Your task to perform on an android device: Open location settings Image 0: 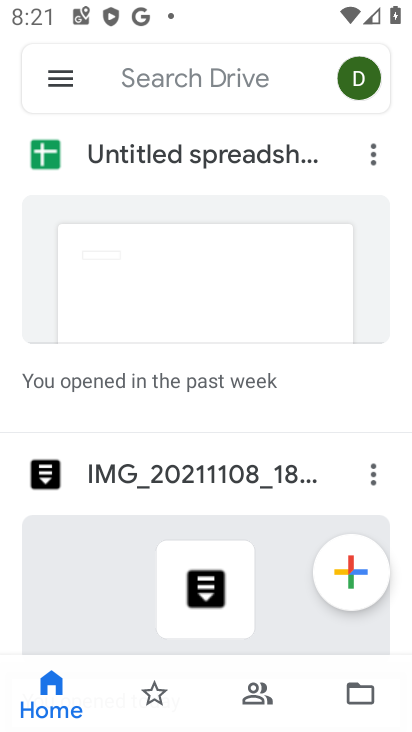
Step 0: press home button
Your task to perform on an android device: Open location settings Image 1: 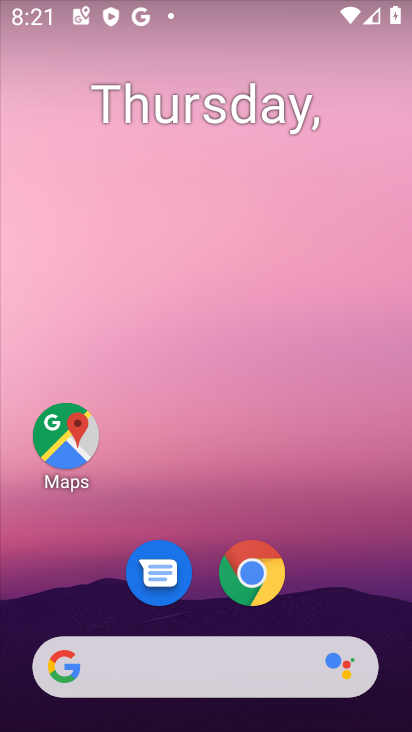
Step 1: drag from (346, 608) to (312, 192)
Your task to perform on an android device: Open location settings Image 2: 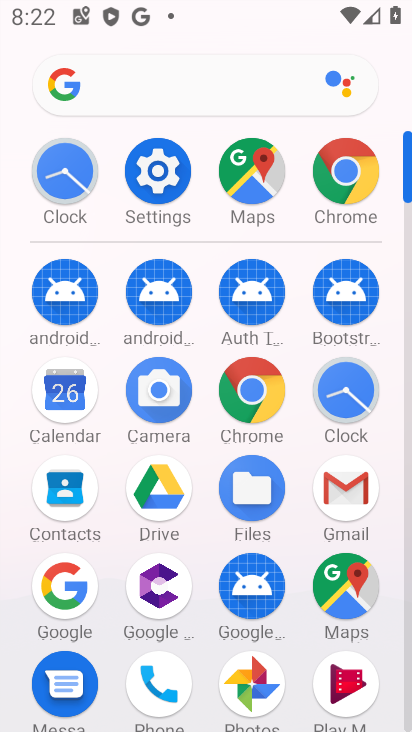
Step 2: click (180, 172)
Your task to perform on an android device: Open location settings Image 3: 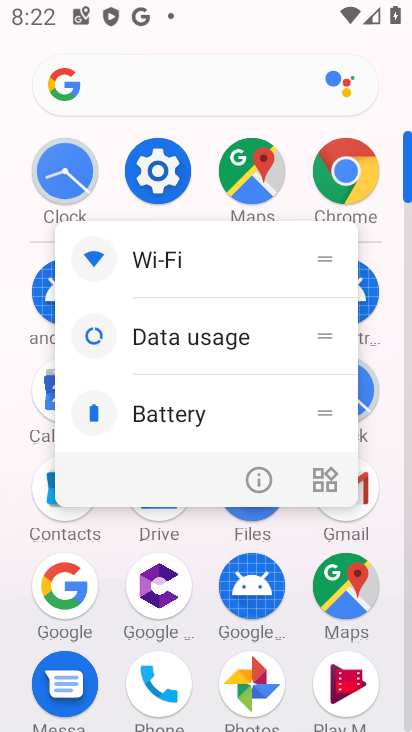
Step 3: click (163, 187)
Your task to perform on an android device: Open location settings Image 4: 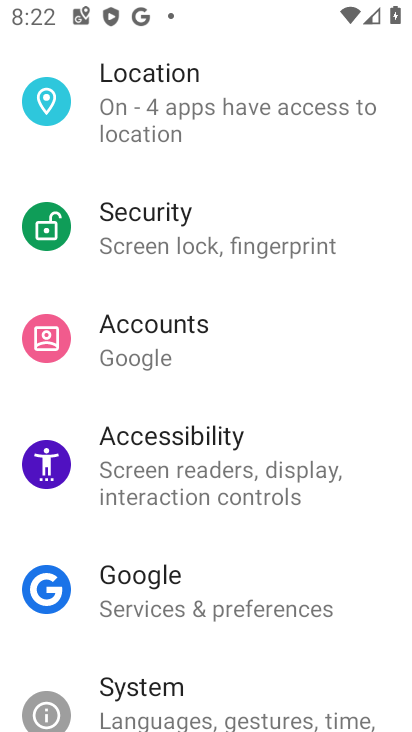
Step 4: click (202, 109)
Your task to perform on an android device: Open location settings Image 5: 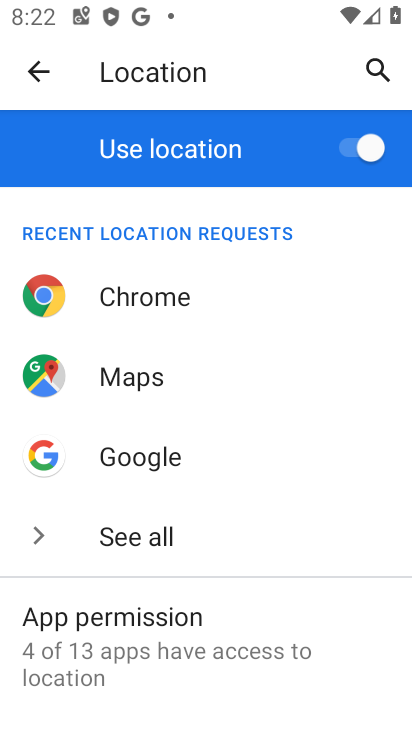
Step 5: drag from (230, 672) to (203, 319)
Your task to perform on an android device: Open location settings Image 6: 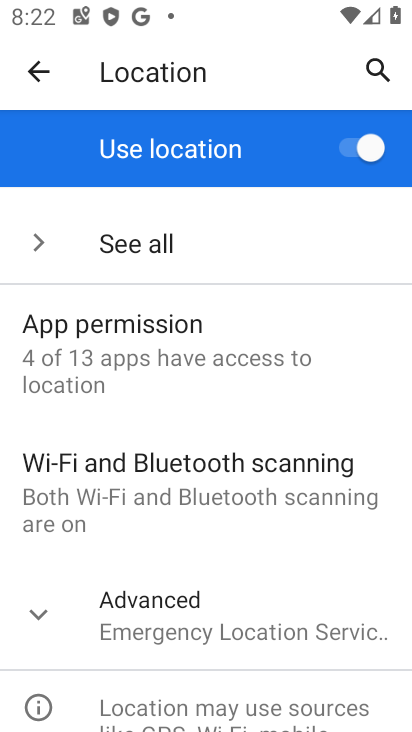
Step 6: drag from (244, 610) to (253, 360)
Your task to perform on an android device: Open location settings Image 7: 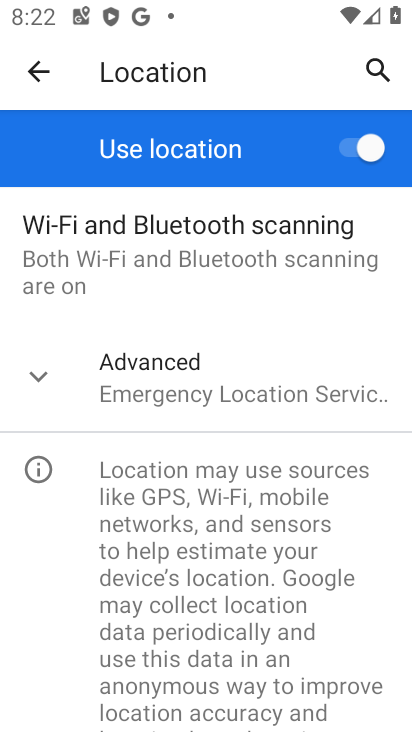
Step 7: click (244, 371)
Your task to perform on an android device: Open location settings Image 8: 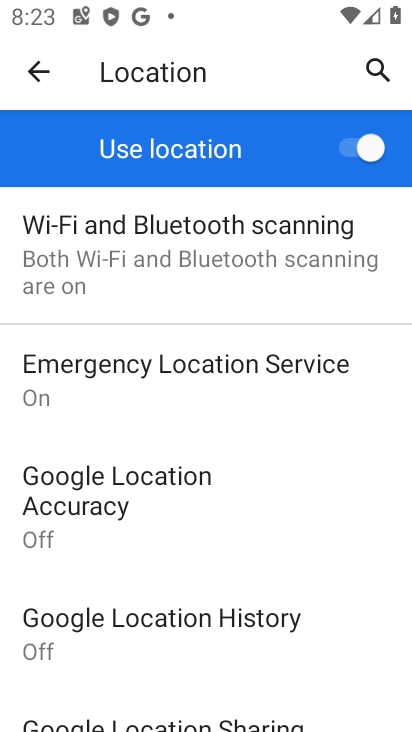
Step 8: drag from (325, 561) to (343, 290)
Your task to perform on an android device: Open location settings Image 9: 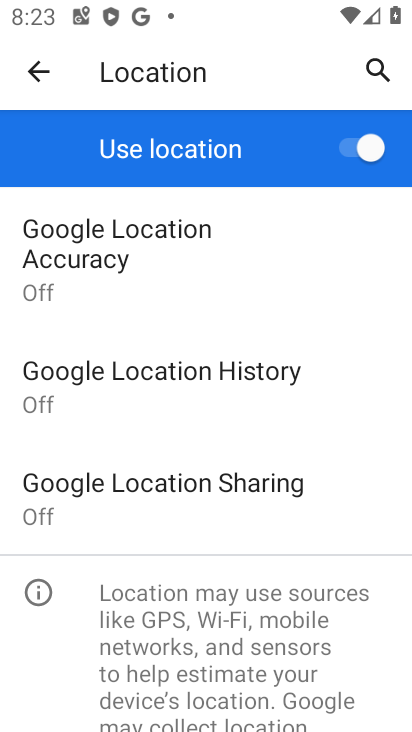
Step 9: click (218, 382)
Your task to perform on an android device: Open location settings Image 10: 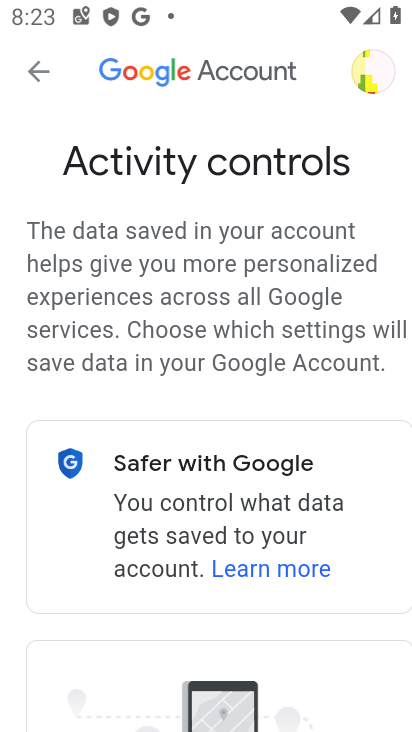
Step 10: task complete